Your task to perform on an android device: Go to sound settings Image 0: 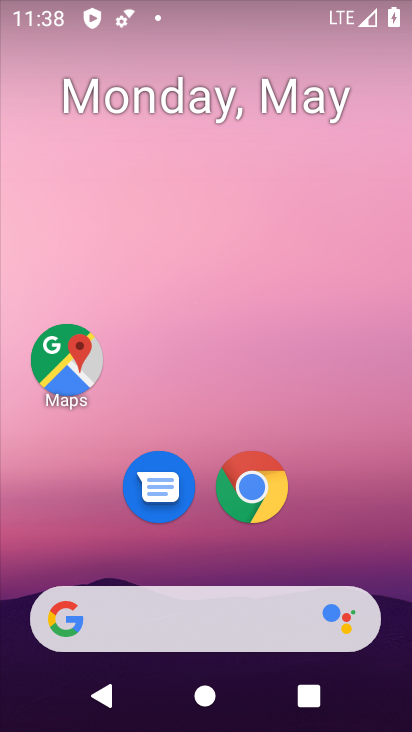
Step 0: press home button
Your task to perform on an android device: Go to sound settings Image 1: 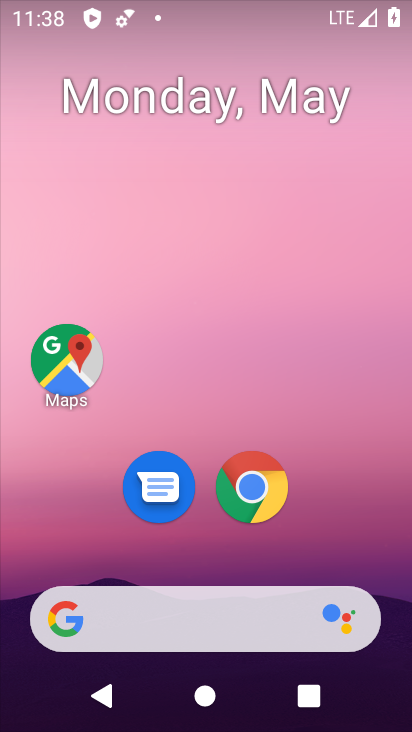
Step 1: press back button
Your task to perform on an android device: Go to sound settings Image 2: 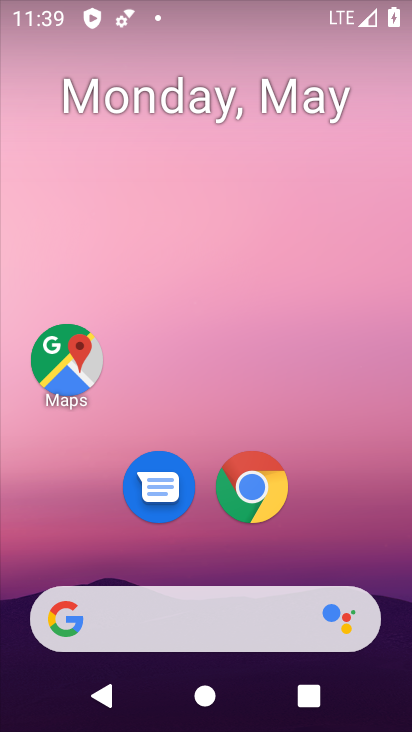
Step 2: drag from (28, 621) to (255, 210)
Your task to perform on an android device: Go to sound settings Image 3: 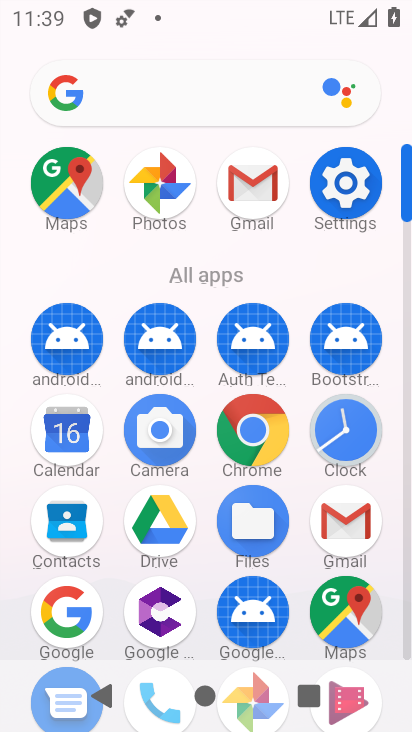
Step 3: click (315, 181)
Your task to perform on an android device: Go to sound settings Image 4: 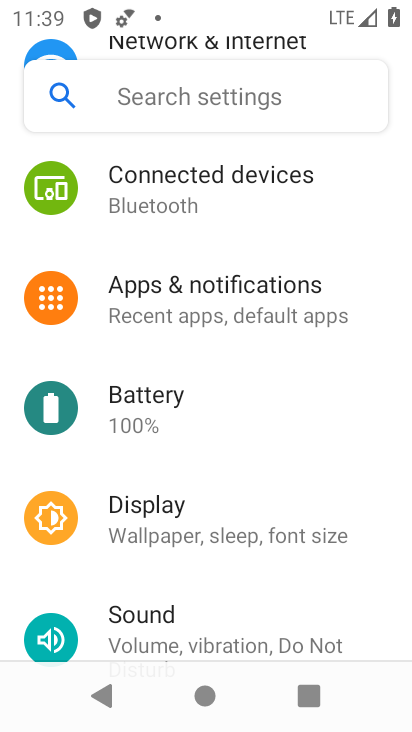
Step 4: click (132, 619)
Your task to perform on an android device: Go to sound settings Image 5: 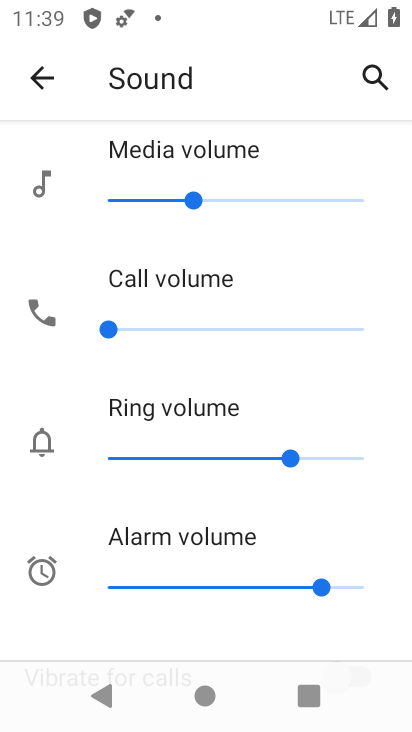
Step 5: task complete